Your task to perform on an android device: turn on improve location accuracy Image 0: 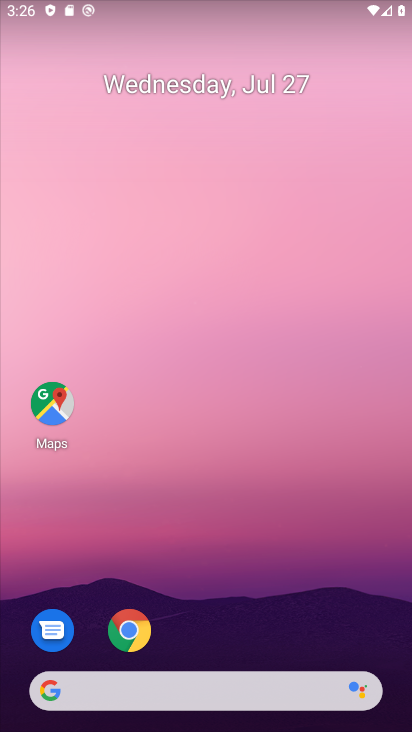
Step 0: press home button
Your task to perform on an android device: turn on improve location accuracy Image 1: 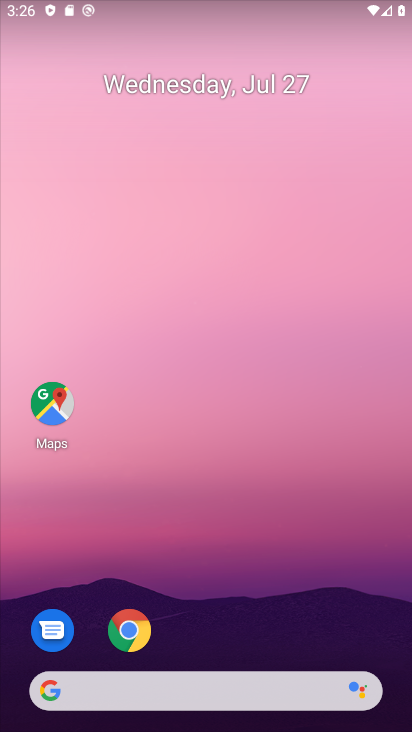
Step 1: drag from (233, 645) to (231, 156)
Your task to perform on an android device: turn on improve location accuracy Image 2: 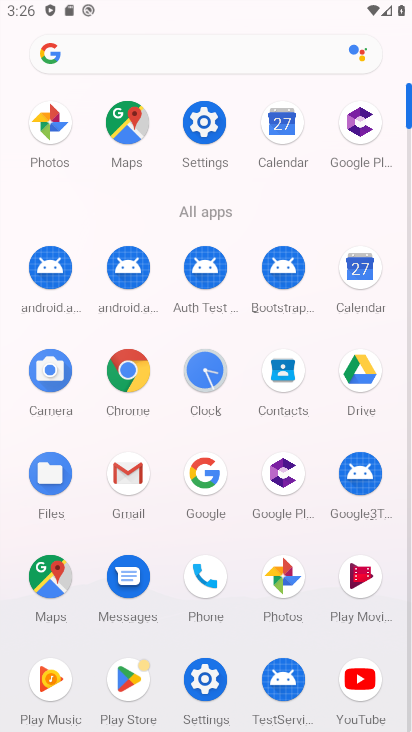
Step 2: click (201, 116)
Your task to perform on an android device: turn on improve location accuracy Image 3: 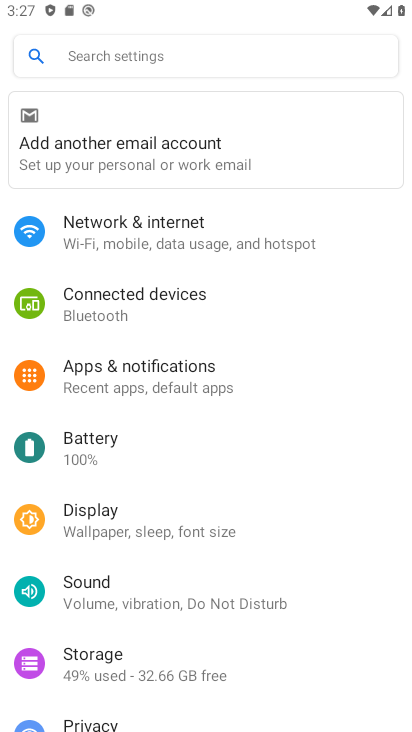
Step 3: drag from (202, 700) to (229, 313)
Your task to perform on an android device: turn on improve location accuracy Image 4: 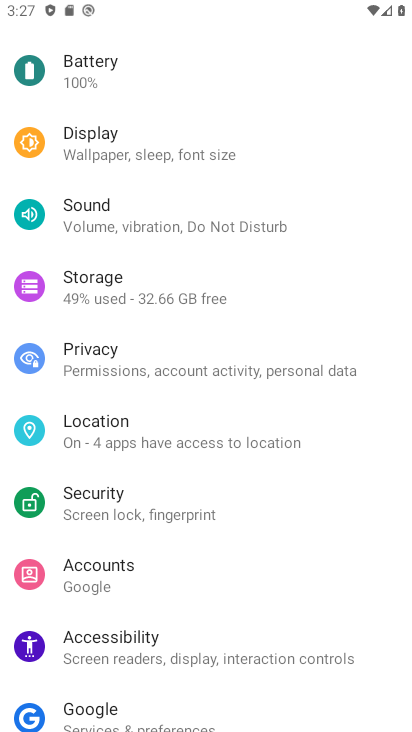
Step 4: click (137, 421)
Your task to perform on an android device: turn on improve location accuracy Image 5: 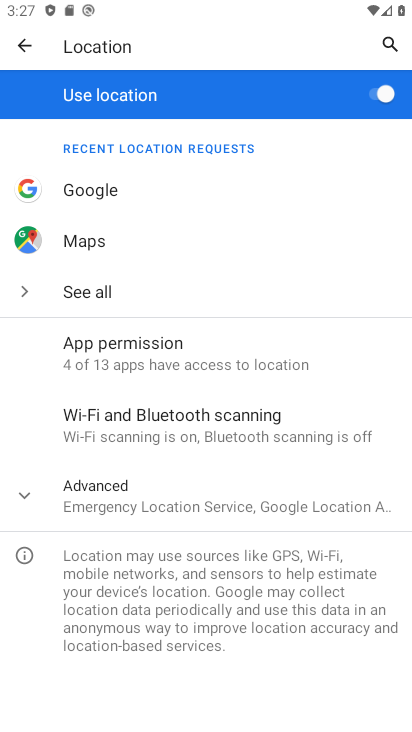
Step 5: click (16, 495)
Your task to perform on an android device: turn on improve location accuracy Image 6: 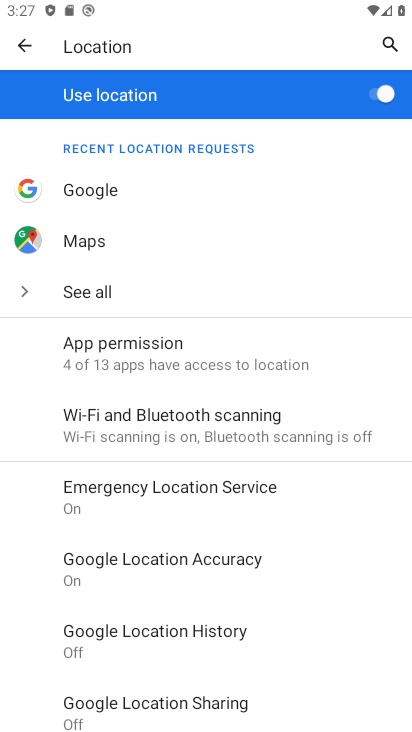
Step 6: click (234, 570)
Your task to perform on an android device: turn on improve location accuracy Image 7: 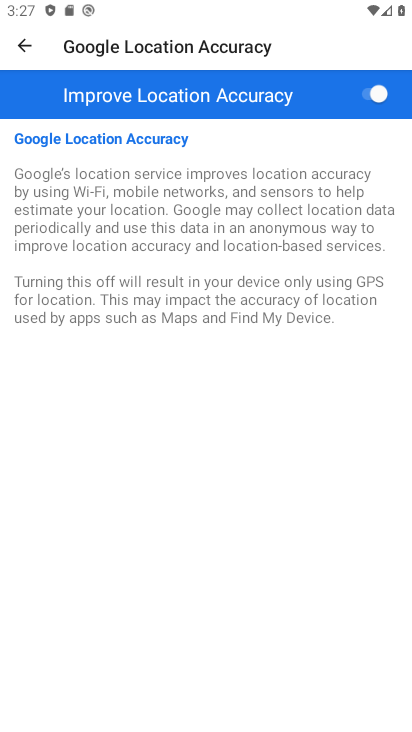
Step 7: task complete